Your task to perform on an android device: Open Google Maps Image 0: 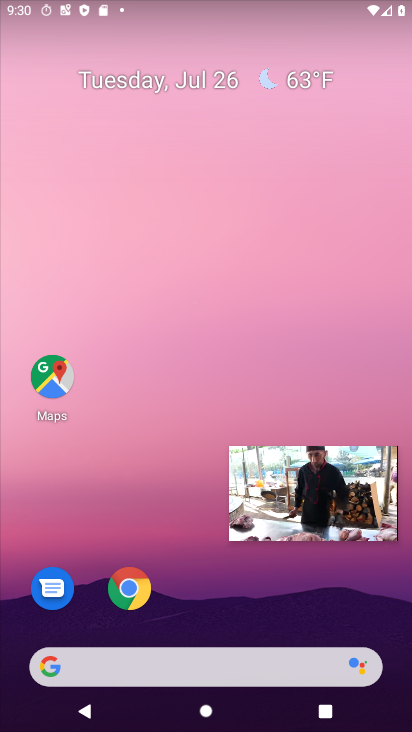
Step 0: drag from (382, 467) to (158, 681)
Your task to perform on an android device: Open Google Maps Image 1: 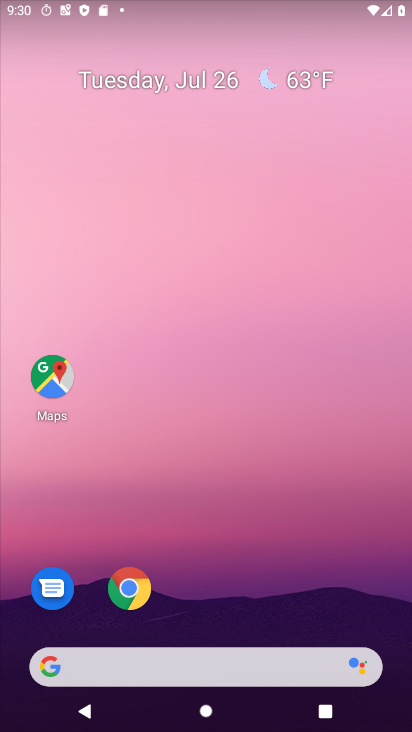
Step 1: click (49, 356)
Your task to perform on an android device: Open Google Maps Image 2: 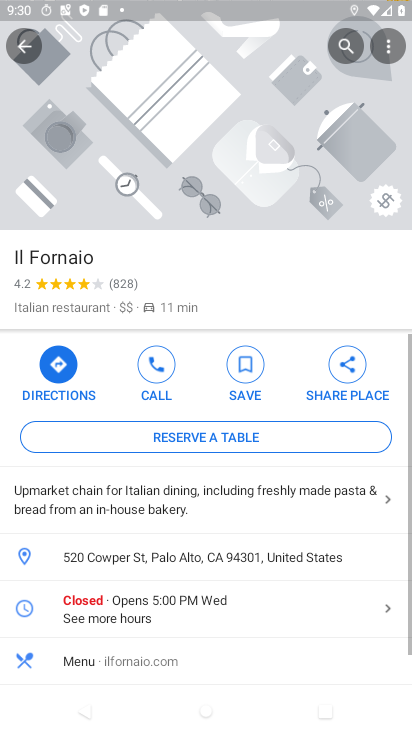
Step 2: click (28, 39)
Your task to perform on an android device: Open Google Maps Image 3: 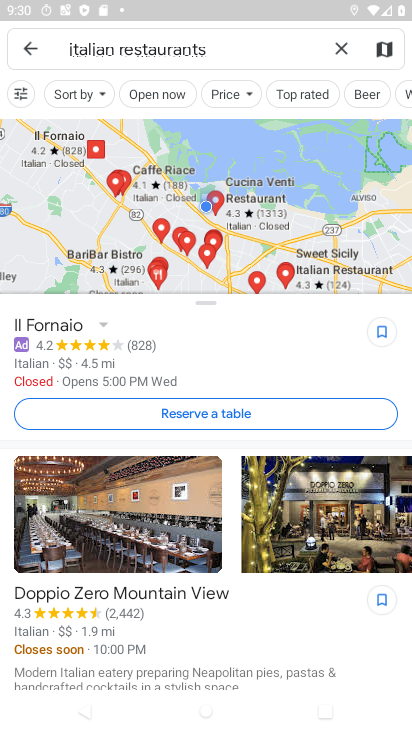
Step 3: task complete